Your task to perform on an android device: Show me popular games on the Play Store Image 0: 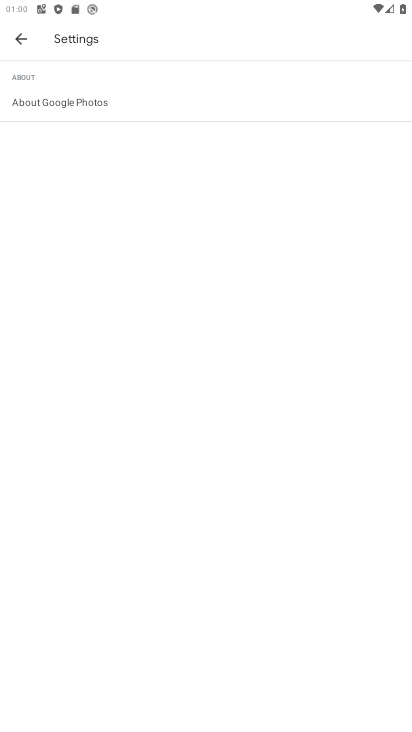
Step 0: press home button
Your task to perform on an android device: Show me popular games on the Play Store Image 1: 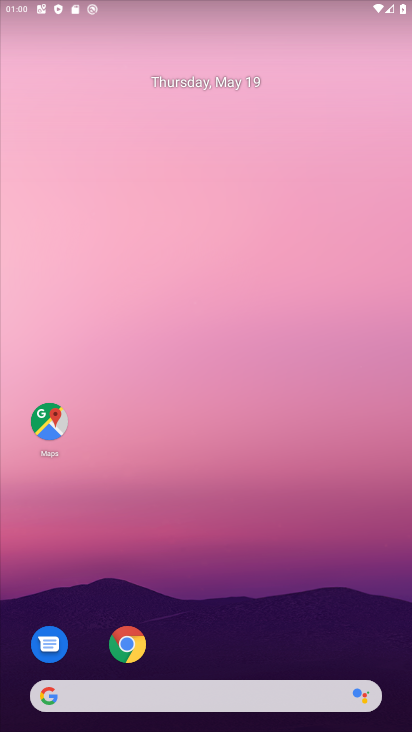
Step 1: drag from (338, 629) to (366, 124)
Your task to perform on an android device: Show me popular games on the Play Store Image 2: 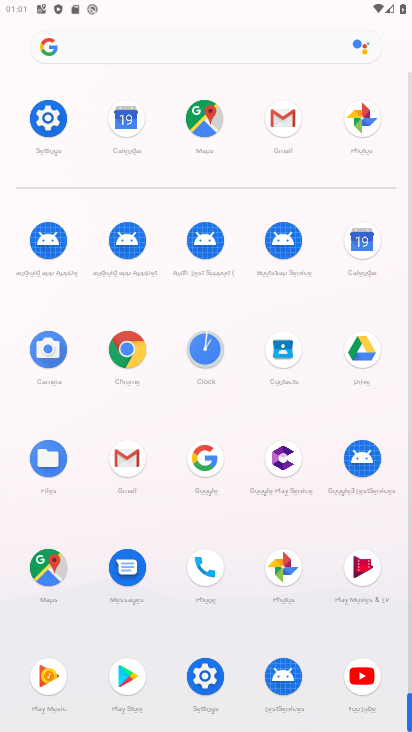
Step 2: click (131, 678)
Your task to perform on an android device: Show me popular games on the Play Store Image 3: 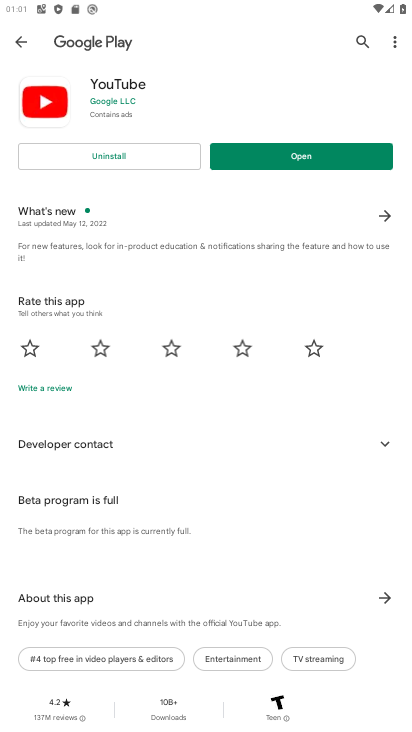
Step 3: click (21, 34)
Your task to perform on an android device: Show me popular games on the Play Store Image 4: 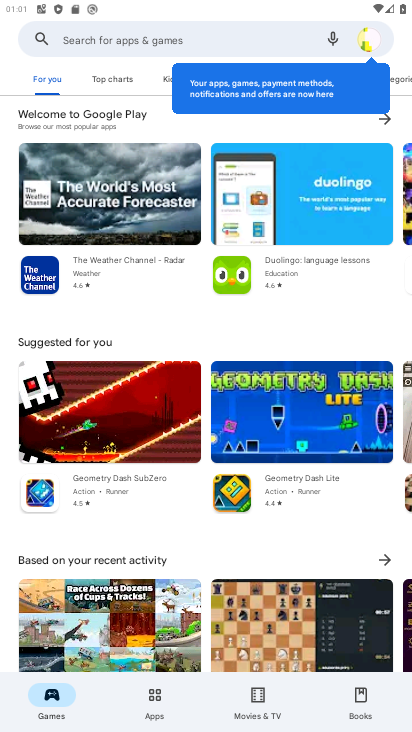
Step 4: click (55, 699)
Your task to perform on an android device: Show me popular games on the Play Store Image 5: 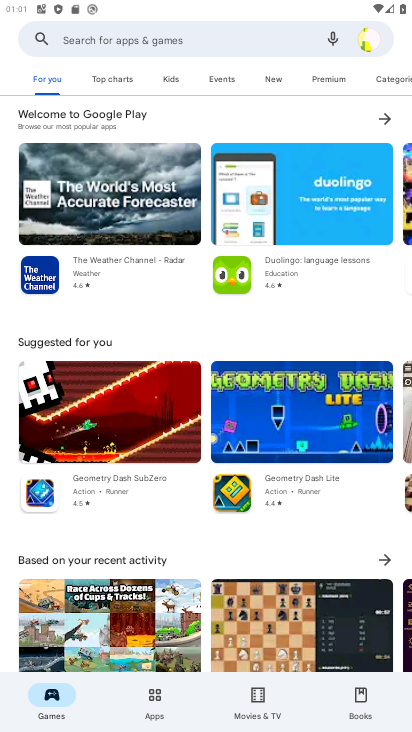
Step 5: click (127, 71)
Your task to perform on an android device: Show me popular games on the Play Store Image 6: 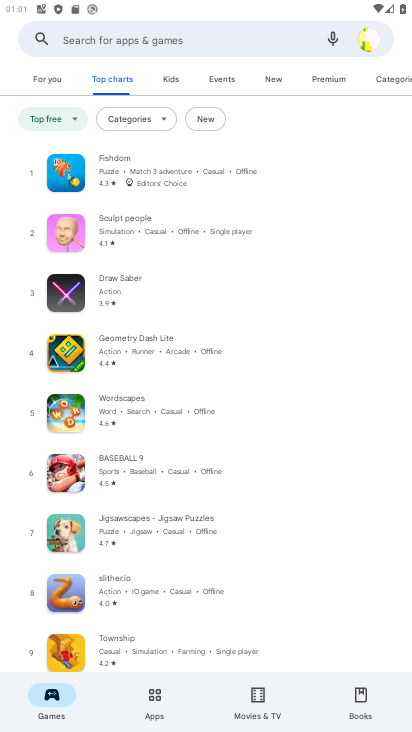
Step 6: task complete